Your task to perform on an android device: stop showing notifications on the lock screen Image 0: 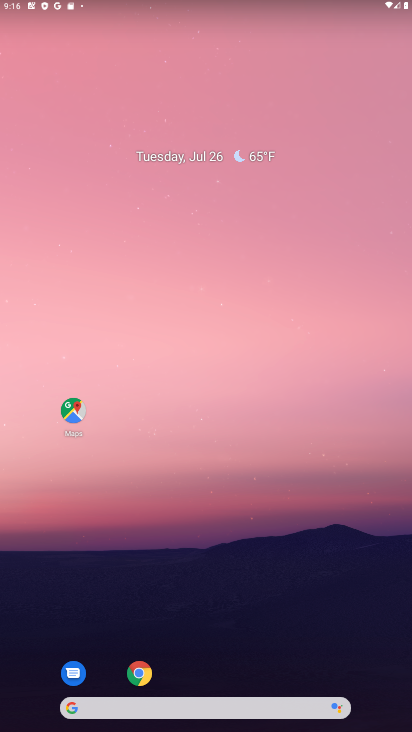
Step 0: drag from (370, 673) to (313, 219)
Your task to perform on an android device: stop showing notifications on the lock screen Image 1: 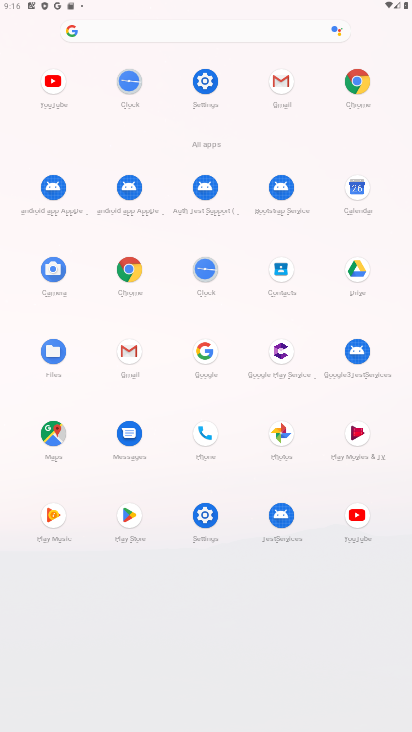
Step 1: click (207, 516)
Your task to perform on an android device: stop showing notifications on the lock screen Image 2: 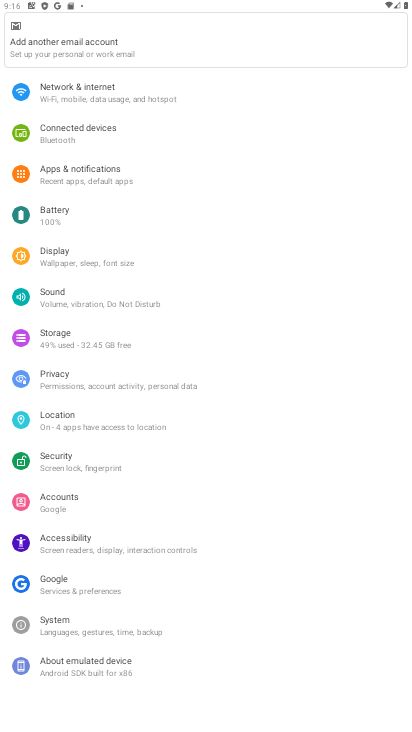
Step 2: click (73, 173)
Your task to perform on an android device: stop showing notifications on the lock screen Image 3: 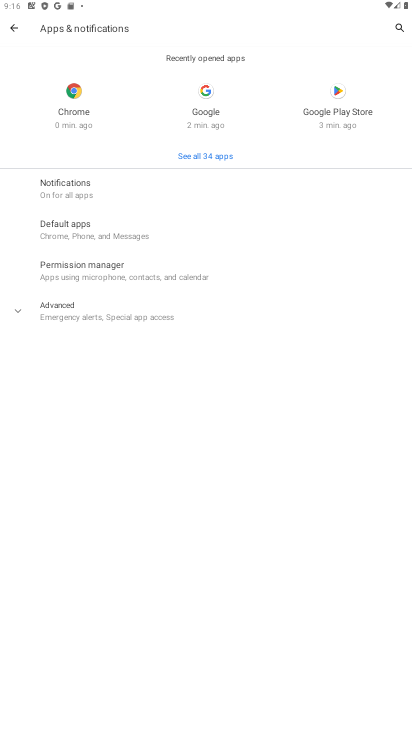
Step 3: click (65, 184)
Your task to perform on an android device: stop showing notifications on the lock screen Image 4: 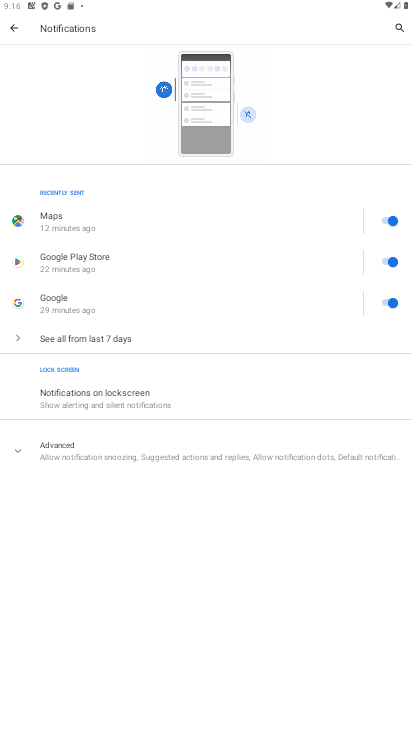
Step 4: click (103, 398)
Your task to perform on an android device: stop showing notifications on the lock screen Image 5: 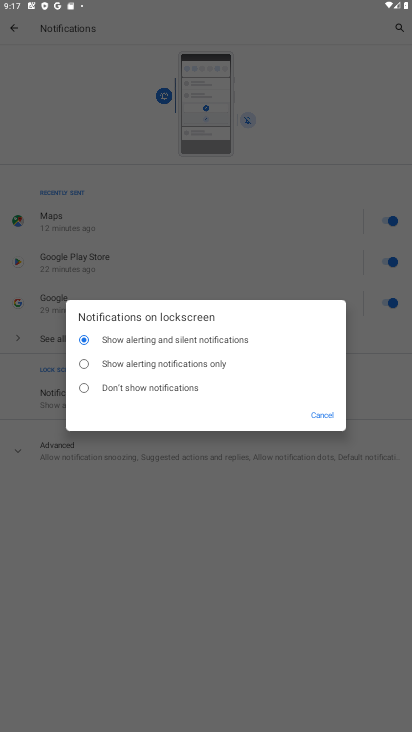
Step 5: click (83, 391)
Your task to perform on an android device: stop showing notifications on the lock screen Image 6: 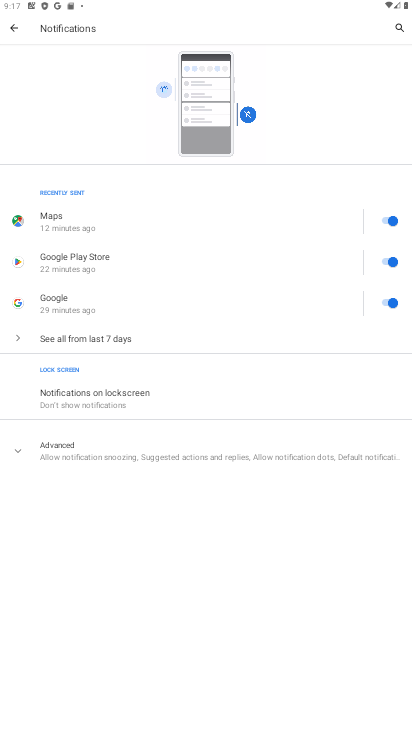
Step 6: task complete